Your task to perform on an android device: delete browsing data in the chrome app Image 0: 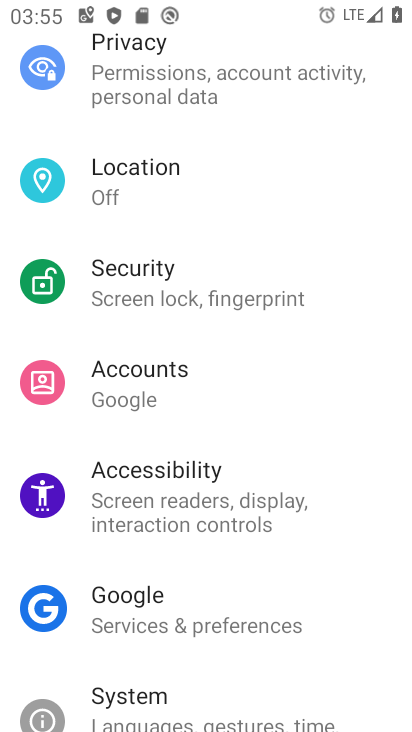
Step 0: press home button
Your task to perform on an android device: delete browsing data in the chrome app Image 1: 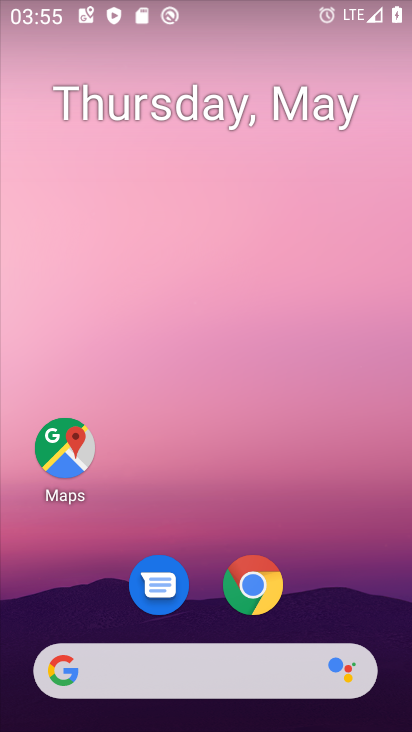
Step 1: click (258, 581)
Your task to perform on an android device: delete browsing data in the chrome app Image 2: 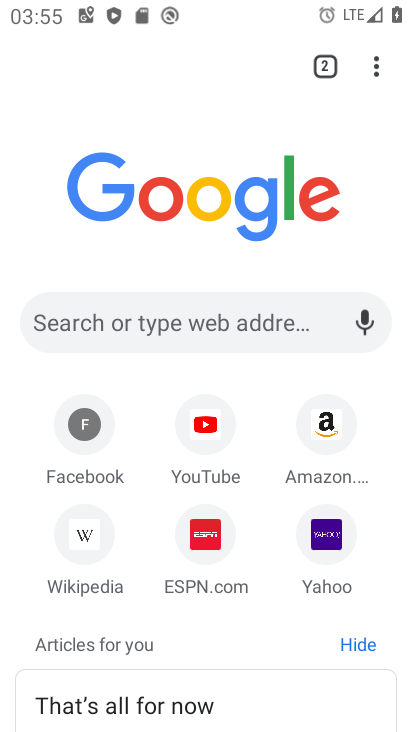
Step 2: click (377, 67)
Your task to perform on an android device: delete browsing data in the chrome app Image 3: 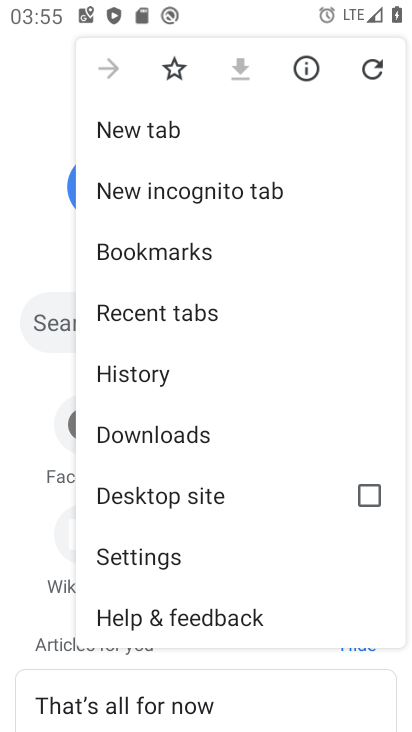
Step 3: click (142, 369)
Your task to perform on an android device: delete browsing data in the chrome app Image 4: 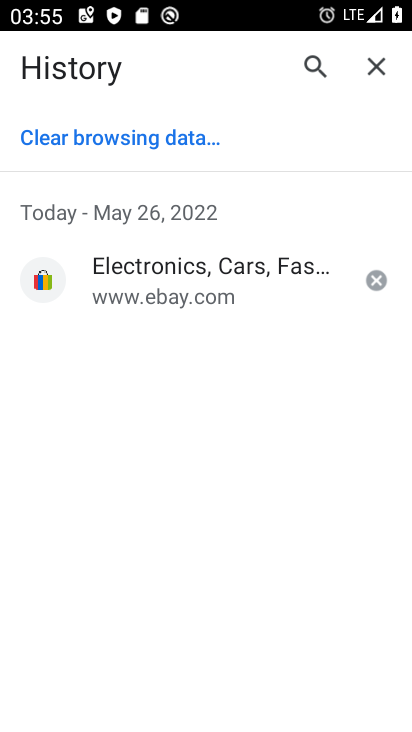
Step 4: click (156, 137)
Your task to perform on an android device: delete browsing data in the chrome app Image 5: 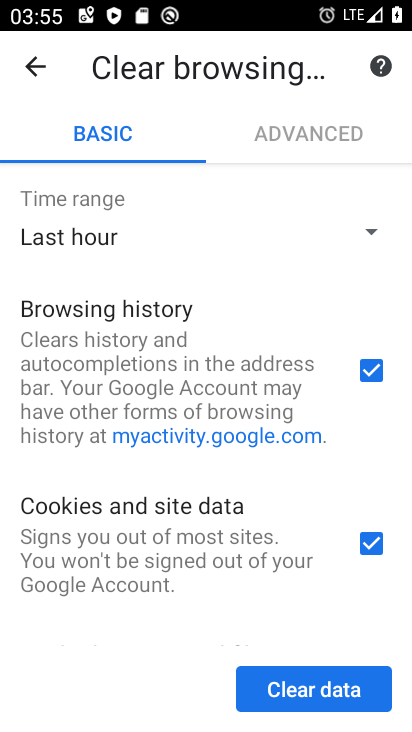
Step 5: click (319, 686)
Your task to perform on an android device: delete browsing data in the chrome app Image 6: 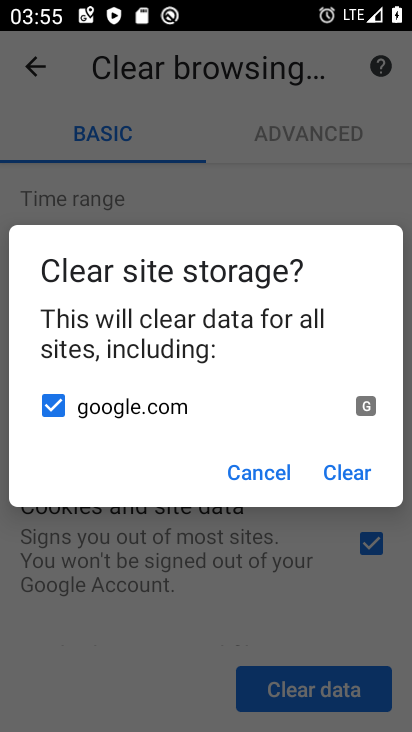
Step 6: click (352, 469)
Your task to perform on an android device: delete browsing data in the chrome app Image 7: 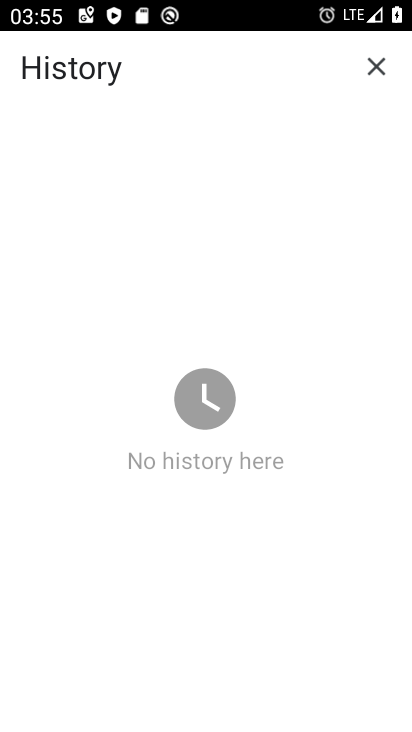
Step 7: task complete